Your task to perform on an android device: change alarm snooze length Image 0: 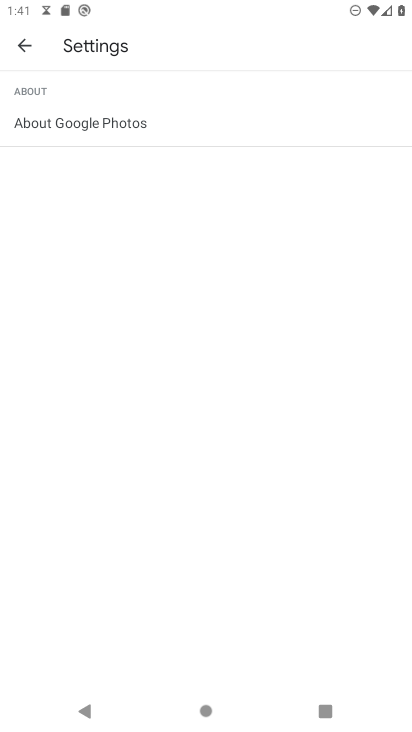
Step 0: press home button
Your task to perform on an android device: change alarm snooze length Image 1: 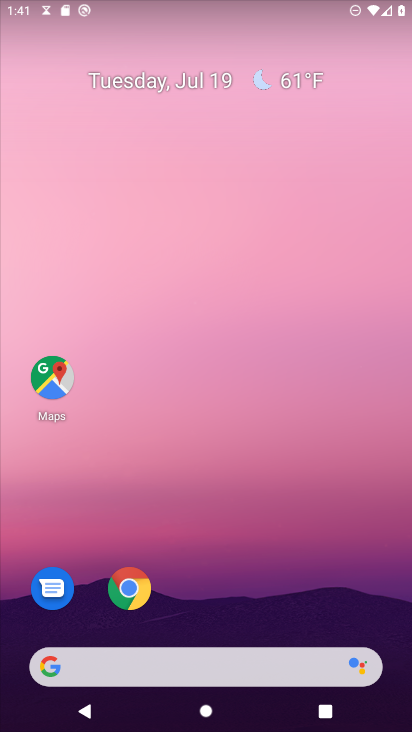
Step 1: drag from (216, 681) to (199, 291)
Your task to perform on an android device: change alarm snooze length Image 2: 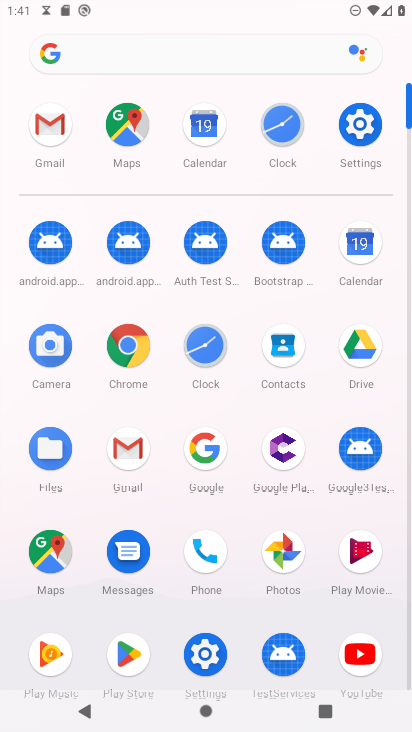
Step 2: click (197, 352)
Your task to perform on an android device: change alarm snooze length Image 3: 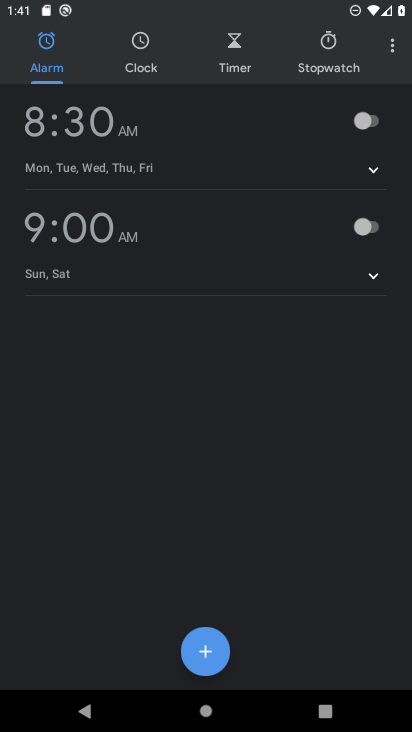
Step 3: click (389, 47)
Your task to perform on an android device: change alarm snooze length Image 4: 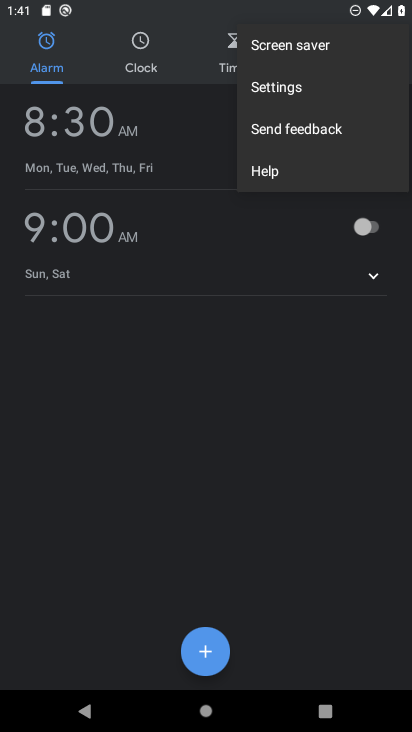
Step 4: click (305, 84)
Your task to perform on an android device: change alarm snooze length Image 5: 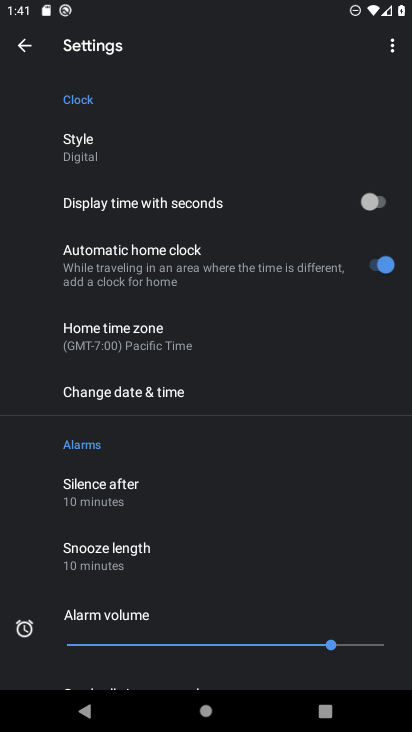
Step 5: drag from (157, 540) to (218, 335)
Your task to perform on an android device: change alarm snooze length Image 6: 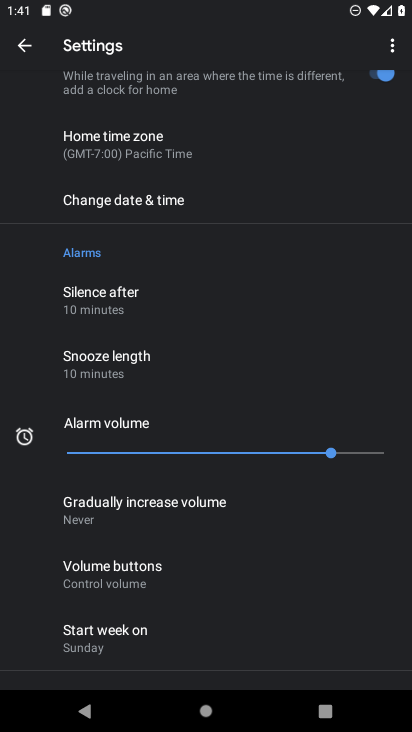
Step 6: click (151, 361)
Your task to perform on an android device: change alarm snooze length Image 7: 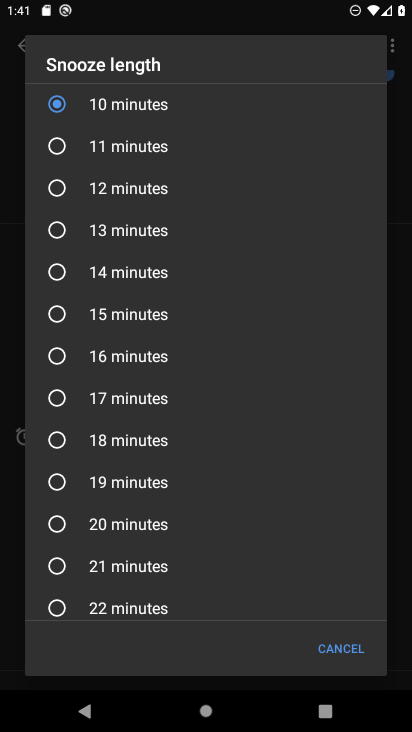
Step 7: click (106, 441)
Your task to perform on an android device: change alarm snooze length Image 8: 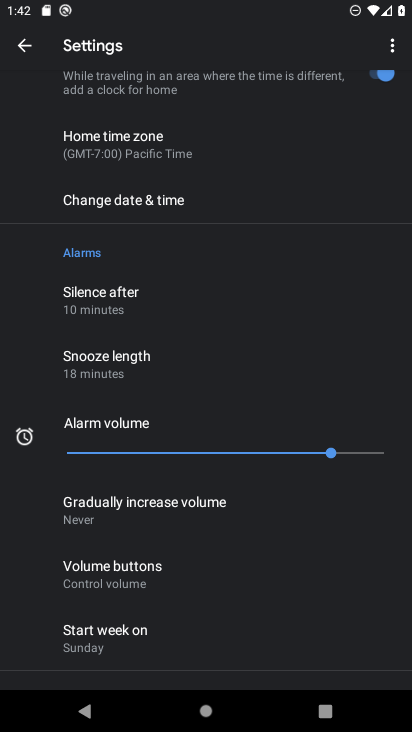
Step 8: task complete